Your task to perform on an android device: Open Google Maps Image 0: 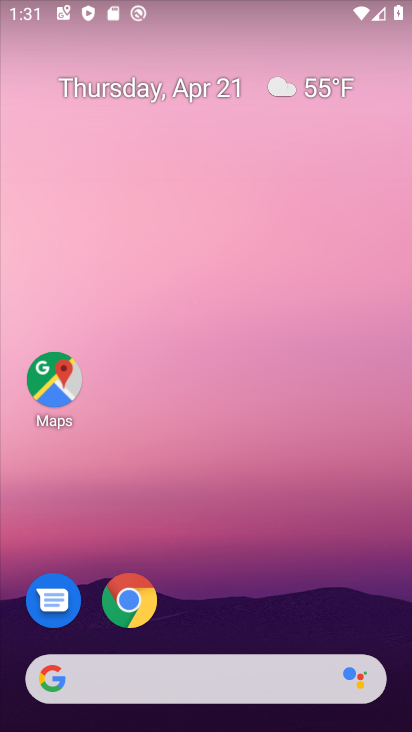
Step 0: click (50, 373)
Your task to perform on an android device: Open Google Maps Image 1: 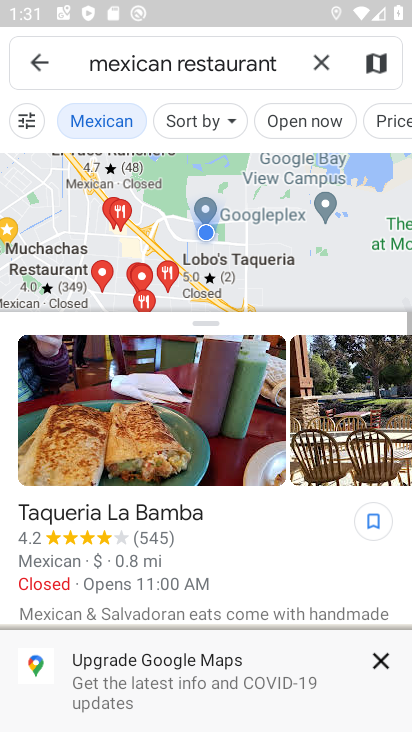
Step 1: task complete